Your task to perform on an android device: change the clock display to digital Image 0: 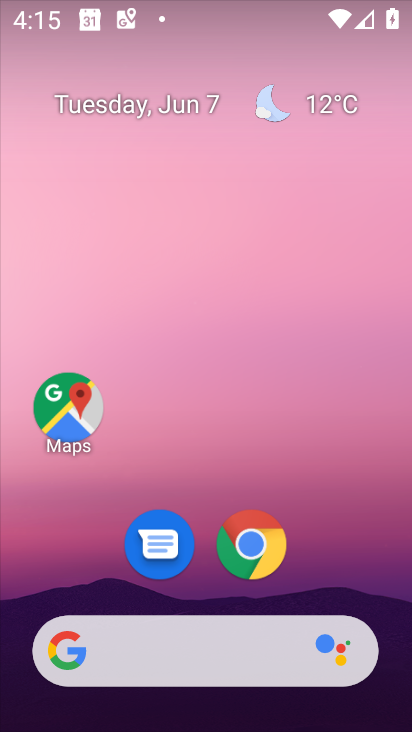
Step 0: task complete